Your task to perform on an android device: Search for a new lawnmower on home depot Image 0: 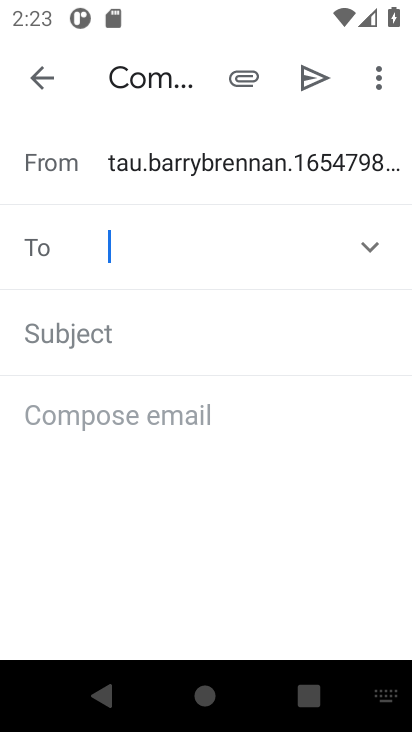
Step 0: press back button
Your task to perform on an android device: Search for a new lawnmower on home depot Image 1: 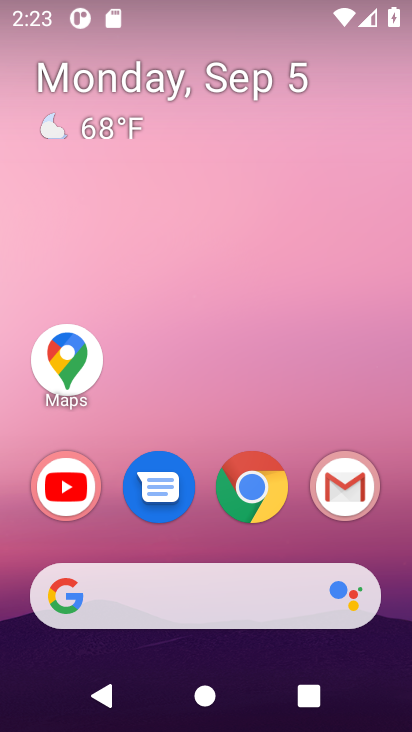
Step 1: click (246, 478)
Your task to perform on an android device: Search for a new lawnmower on home depot Image 2: 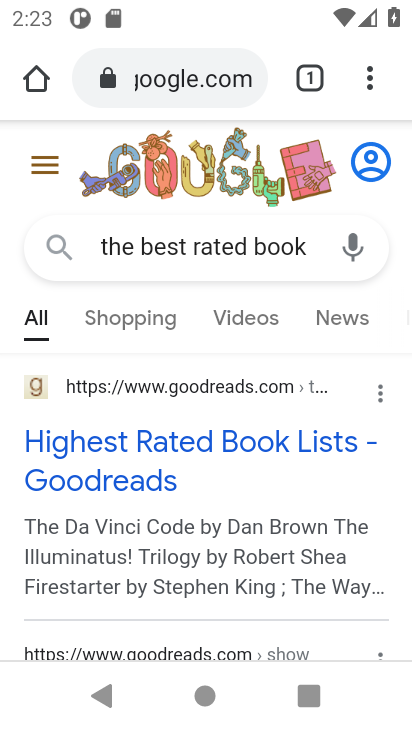
Step 2: click (184, 79)
Your task to perform on an android device: Search for a new lawnmower on home depot Image 3: 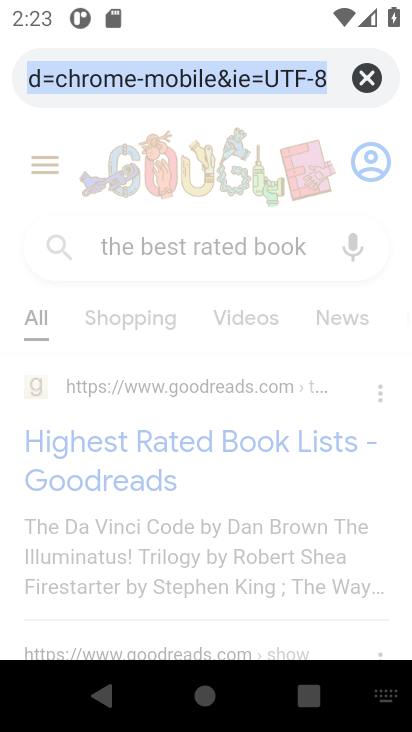
Step 3: click (362, 67)
Your task to perform on an android device: Search for a new lawnmower on home depot Image 4: 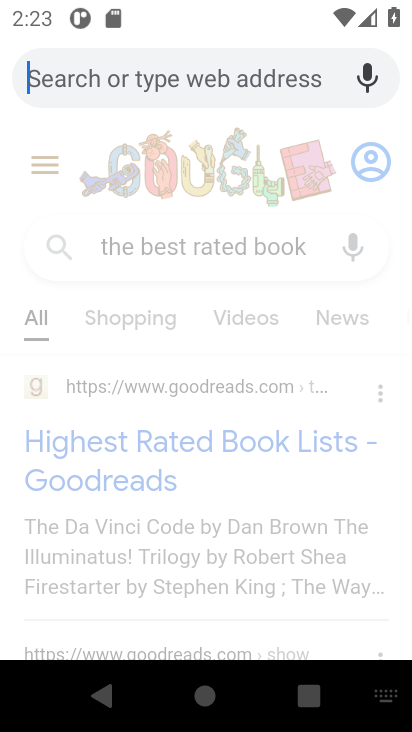
Step 4: type "new lawnmower on home depot"
Your task to perform on an android device: Search for a new lawnmower on home depot Image 5: 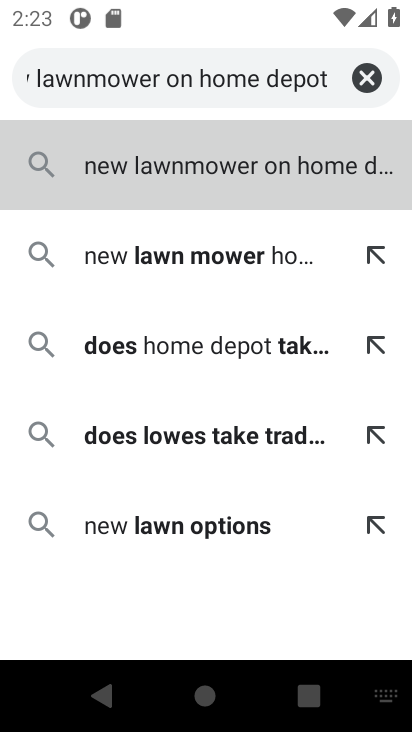
Step 5: click (265, 181)
Your task to perform on an android device: Search for a new lawnmower on home depot Image 6: 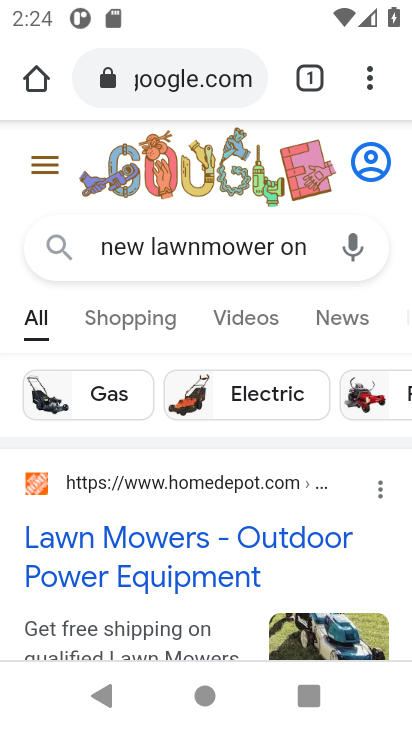
Step 6: task complete